Your task to perform on an android device: change notification settings in the gmail app Image 0: 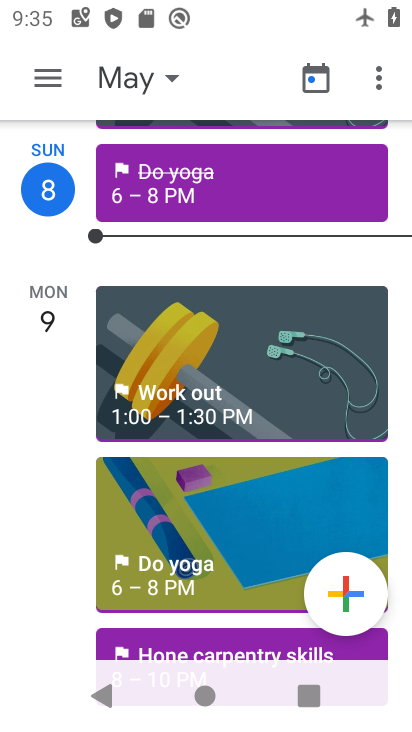
Step 0: press home button
Your task to perform on an android device: change notification settings in the gmail app Image 1: 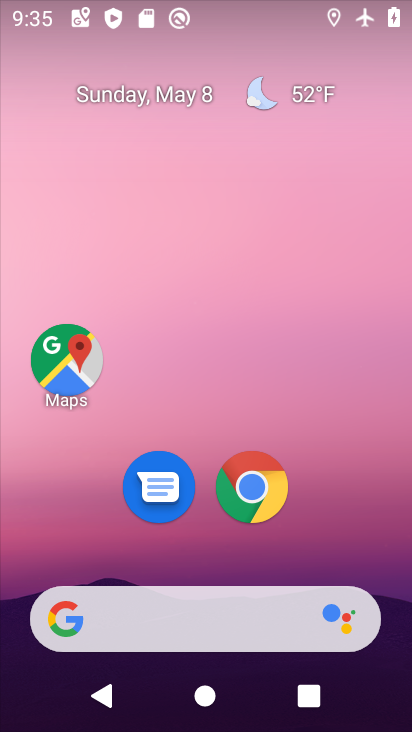
Step 1: drag from (397, 604) to (293, 48)
Your task to perform on an android device: change notification settings in the gmail app Image 2: 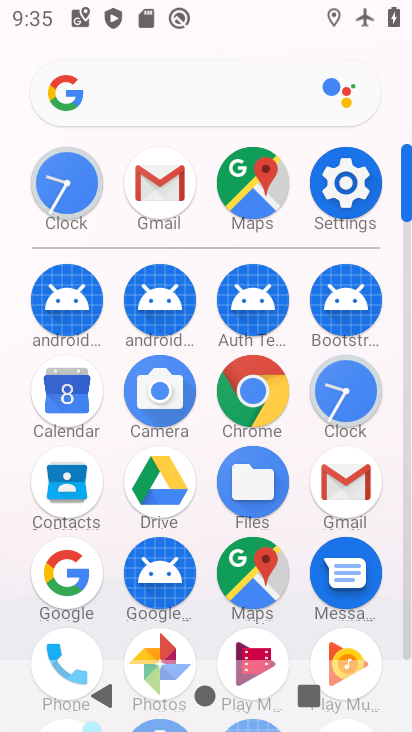
Step 2: click (334, 507)
Your task to perform on an android device: change notification settings in the gmail app Image 3: 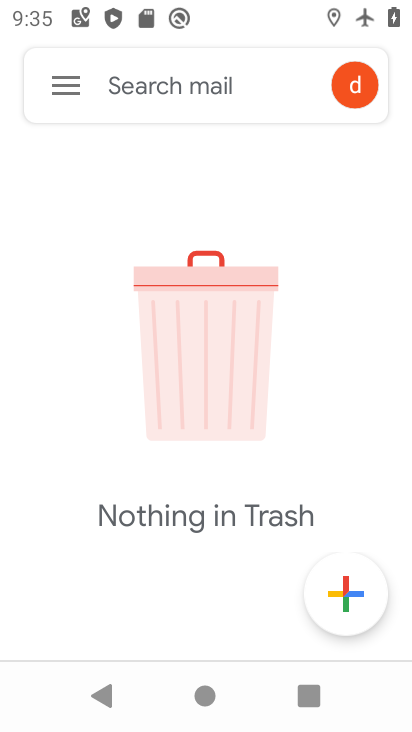
Step 3: click (75, 94)
Your task to perform on an android device: change notification settings in the gmail app Image 4: 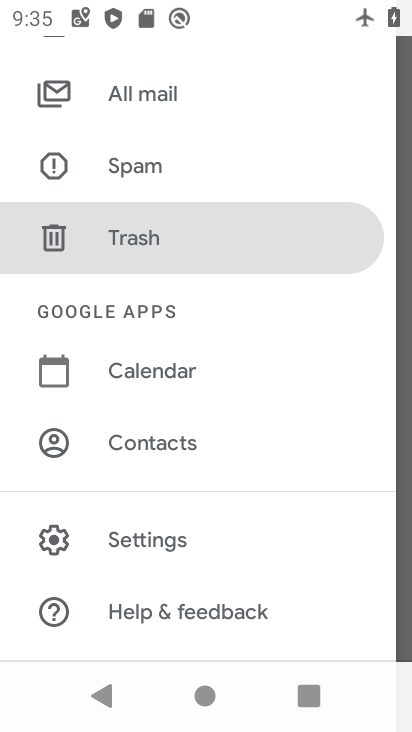
Step 4: click (210, 543)
Your task to perform on an android device: change notification settings in the gmail app Image 5: 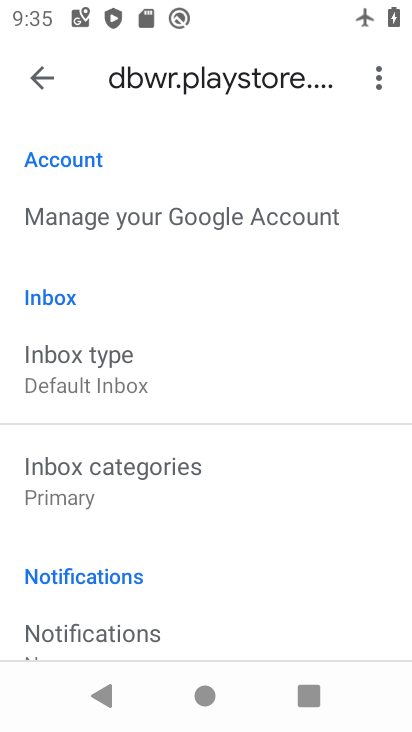
Step 5: click (130, 620)
Your task to perform on an android device: change notification settings in the gmail app Image 6: 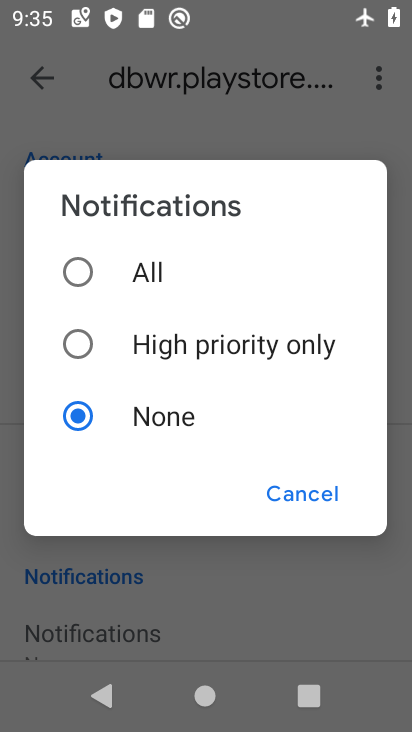
Step 6: click (72, 282)
Your task to perform on an android device: change notification settings in the gmail app Image 7: 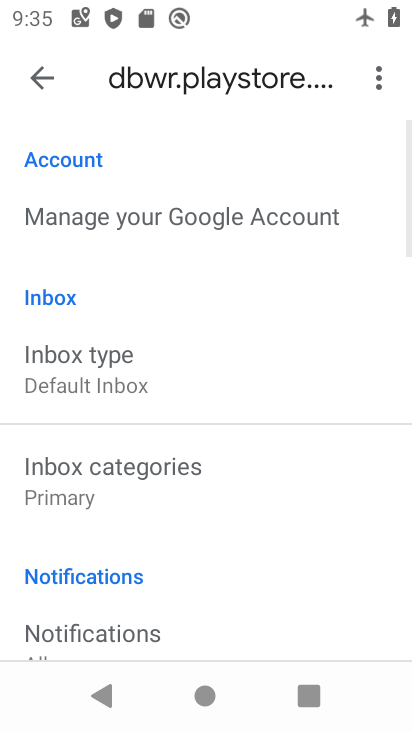
Step 7: task complete